Your task to perform on an android device: What's the news in Argentina? Image 0: 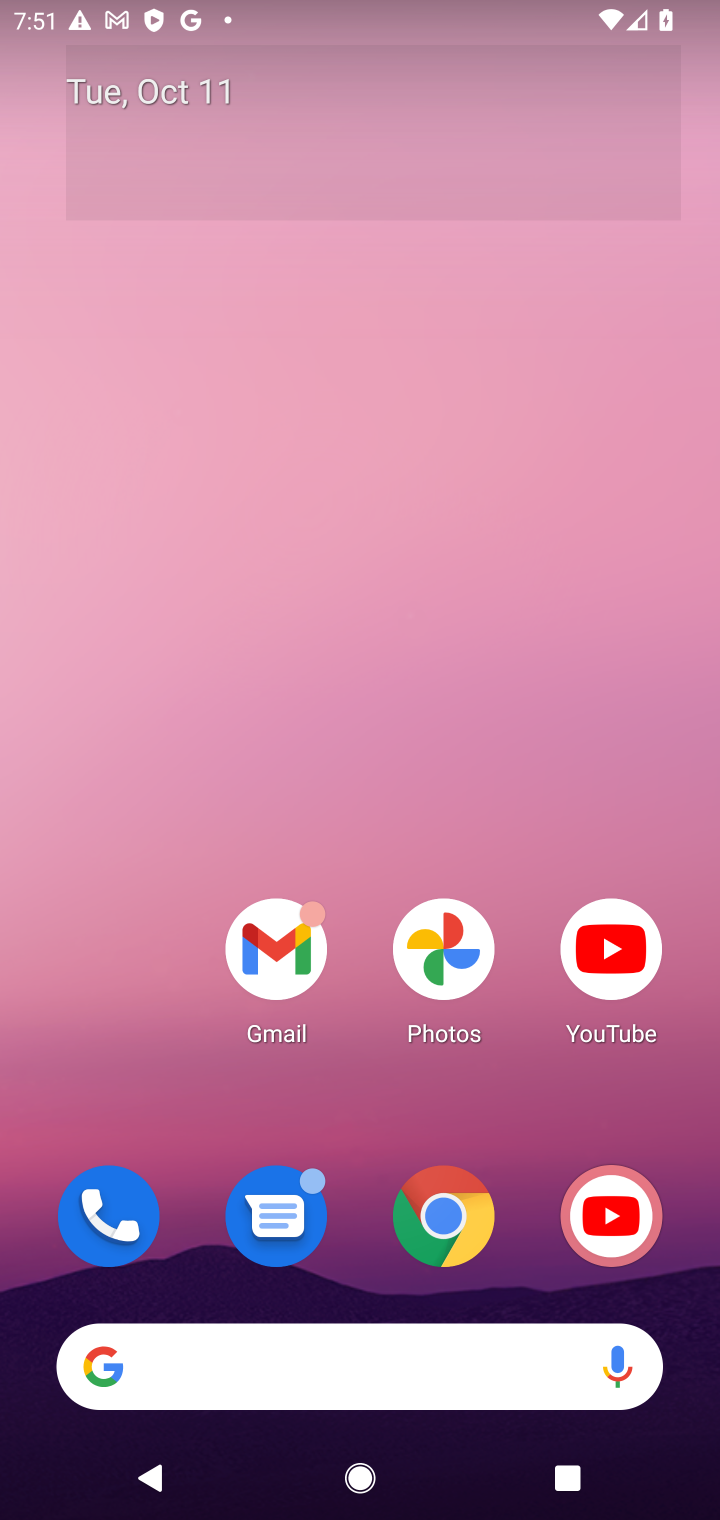
Step 0: click (444, 1216)
Your task to perform on an android device: What's the news in Argentina? Image 1: 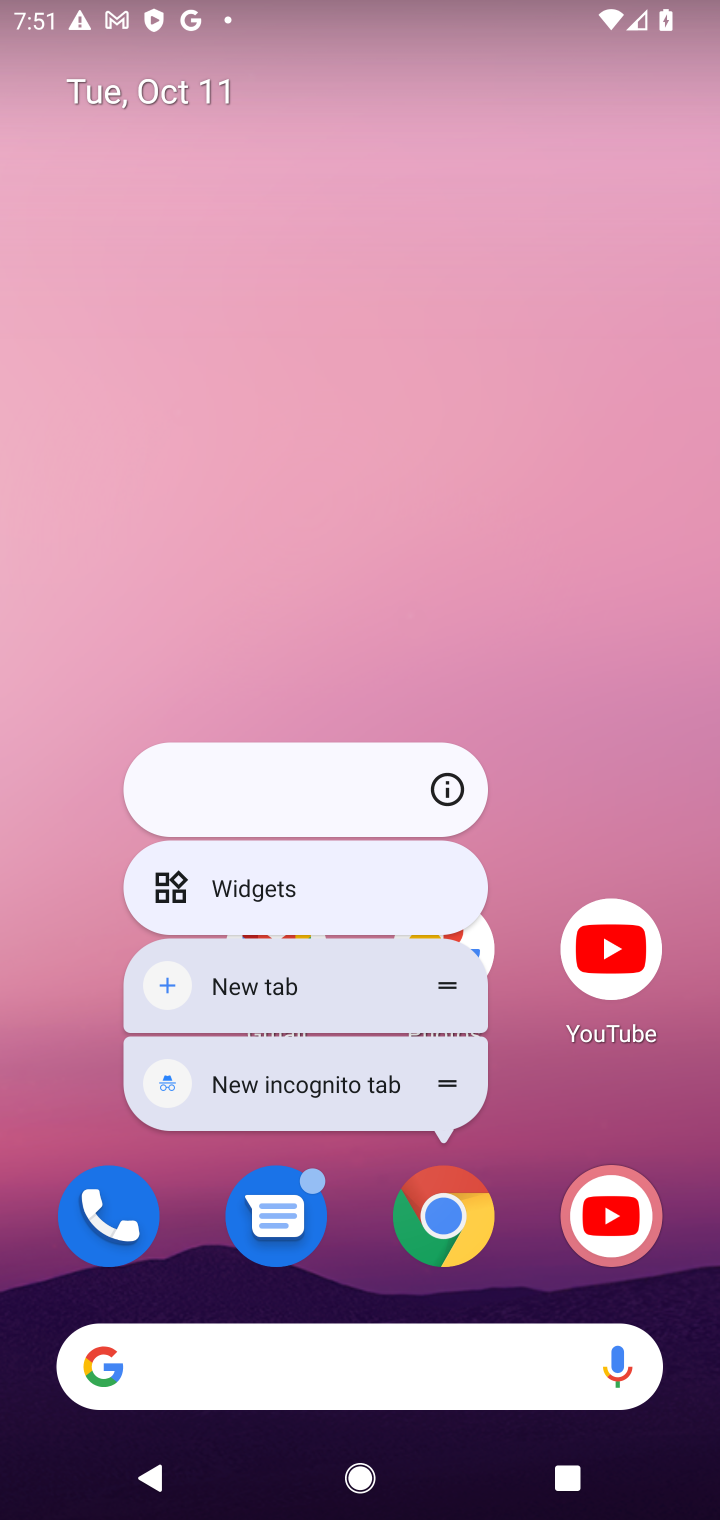
Step 1: click (440, 1213)
Your task to perform on an android device: What's the news in Argentina? Image 2: 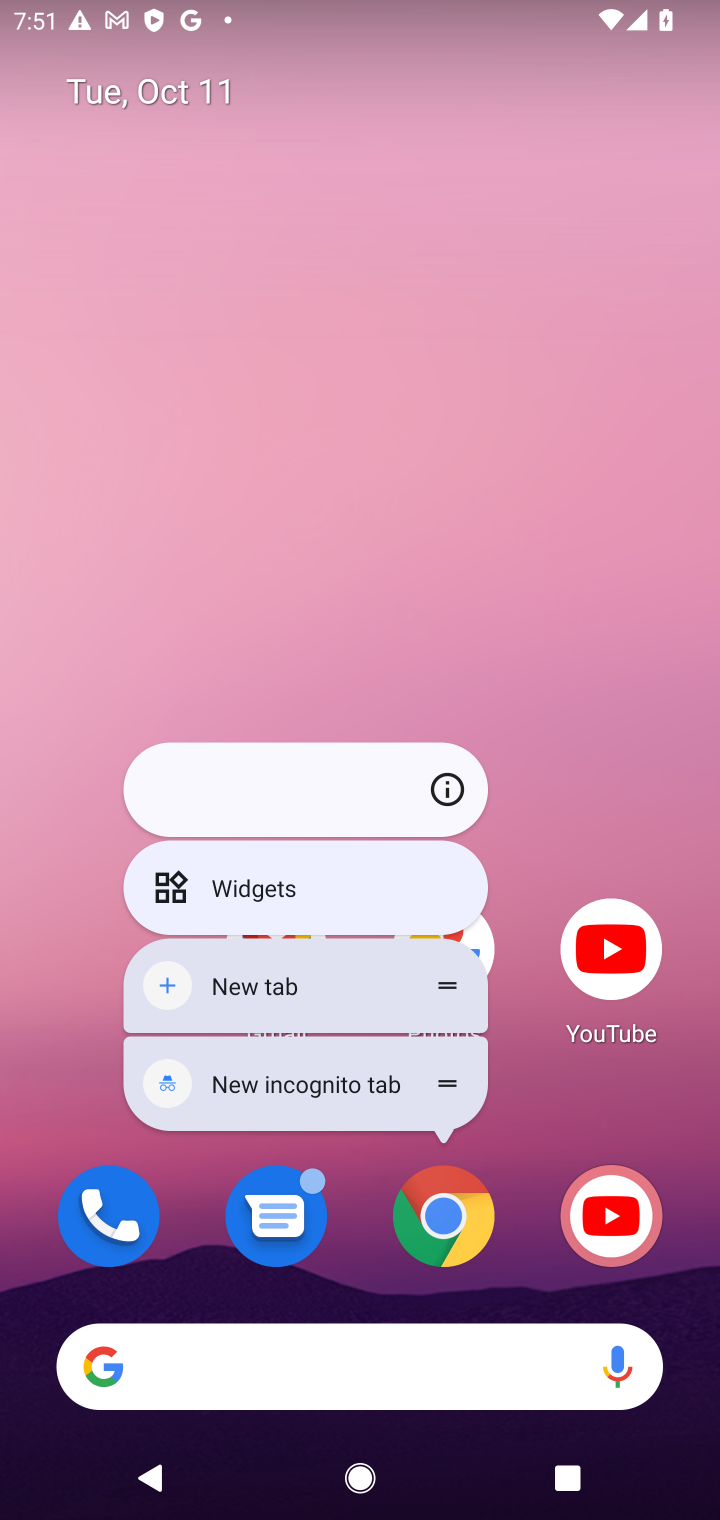
Step 2: click (440, 1213)
Your task to perform on an android device: What's the news in Argentina? Image 3: 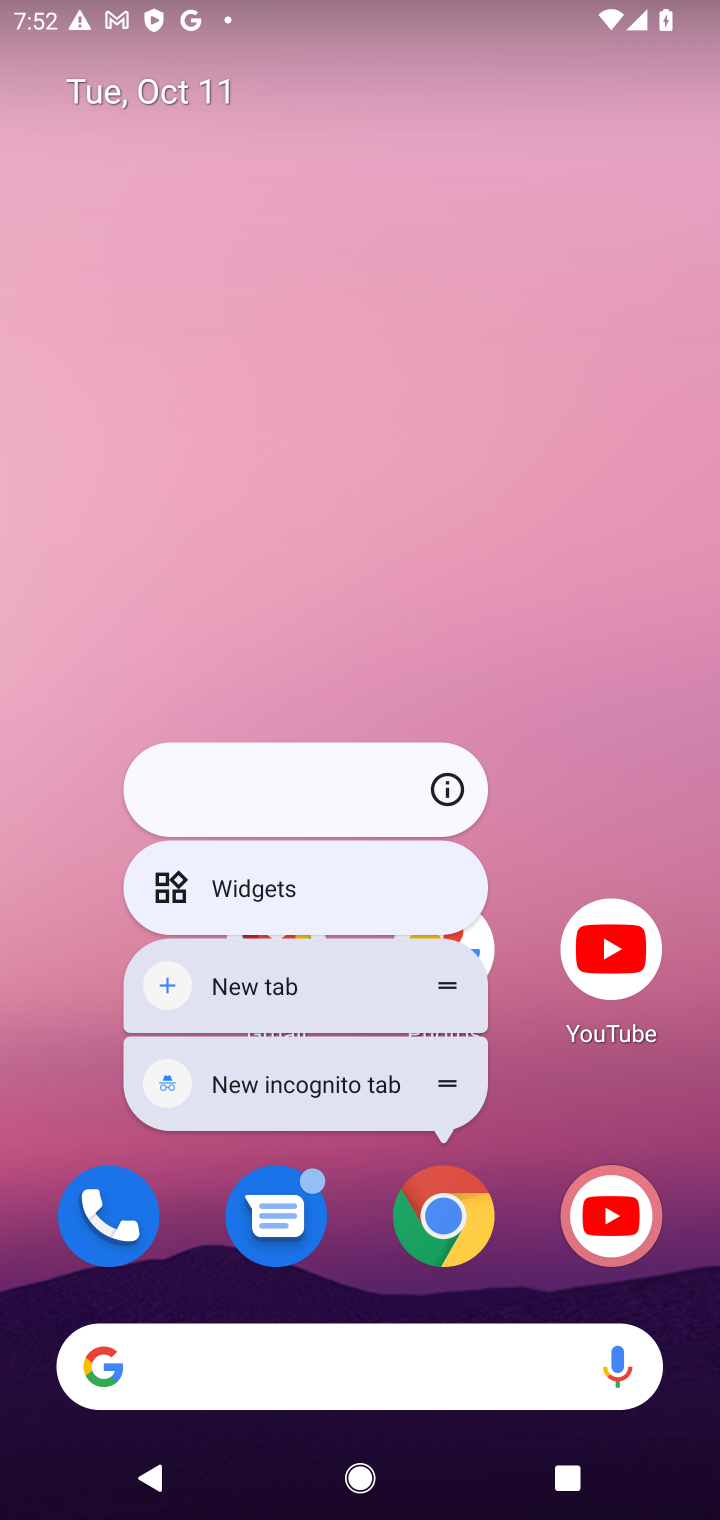
Step 3: click (440, 1213)
Your task to perform on an android device: What's the news in Argentina? Image 4: 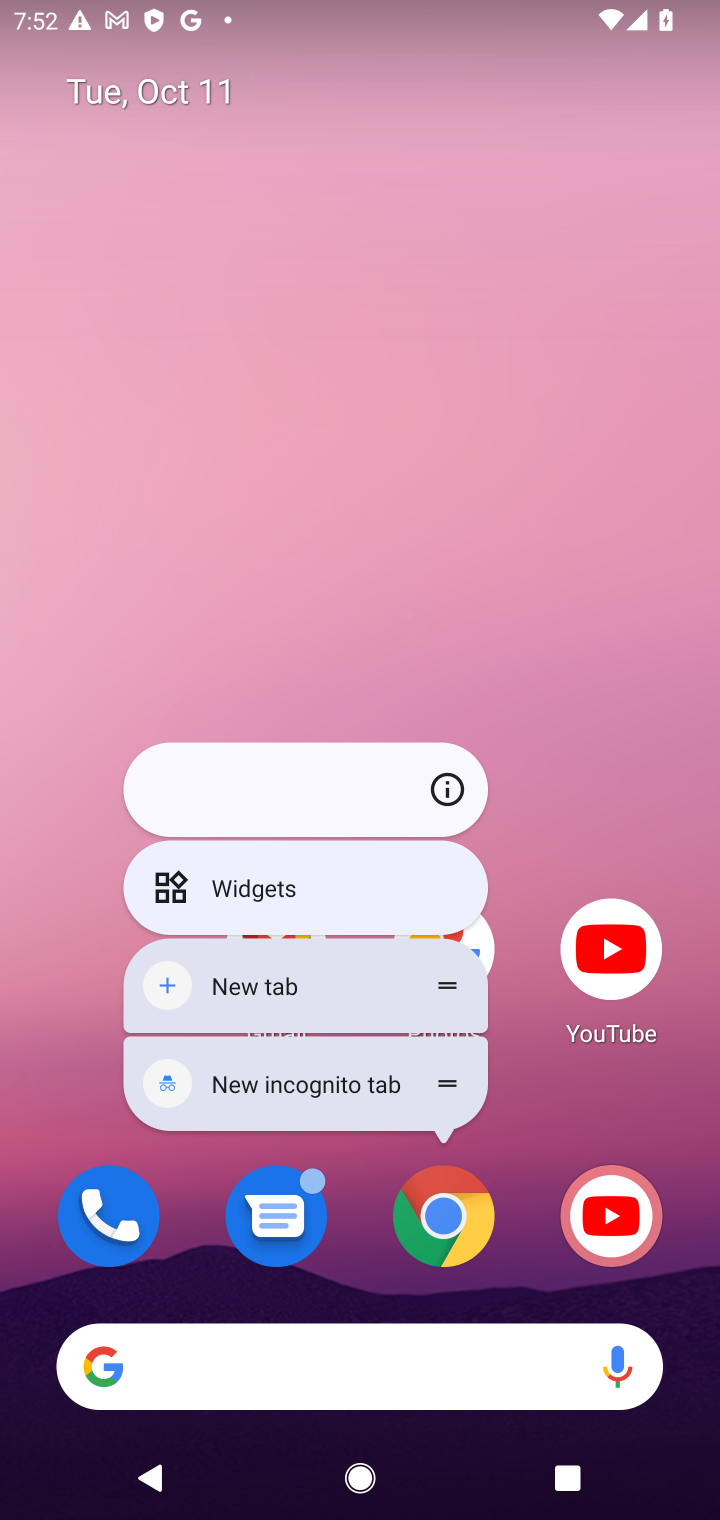
Step 4: click (440, 1213)
Your task to perform on an android device: What's the news in Argentina? Image 5: 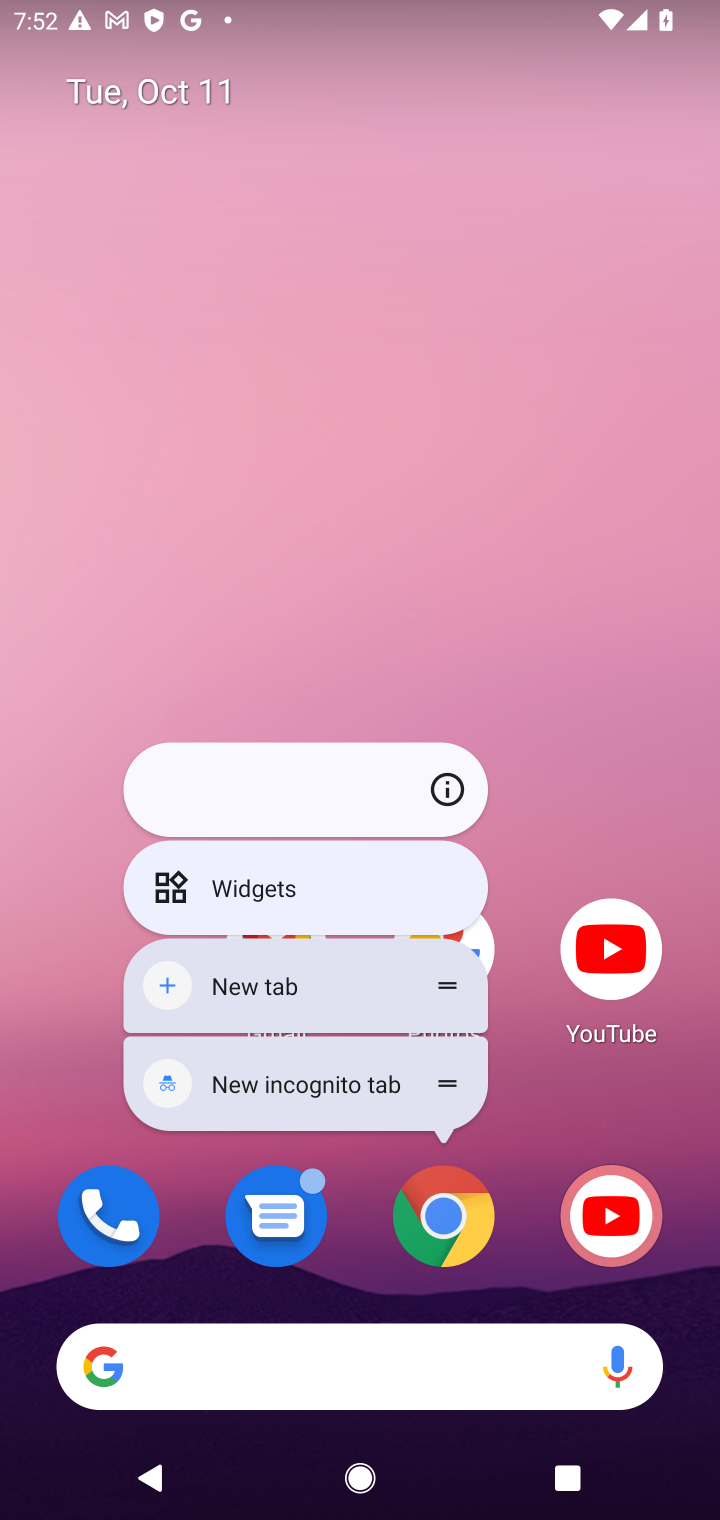
Step 5: click (440, 1213)
Your task to perform on an android device: What's the news in Argentina? Image 6: 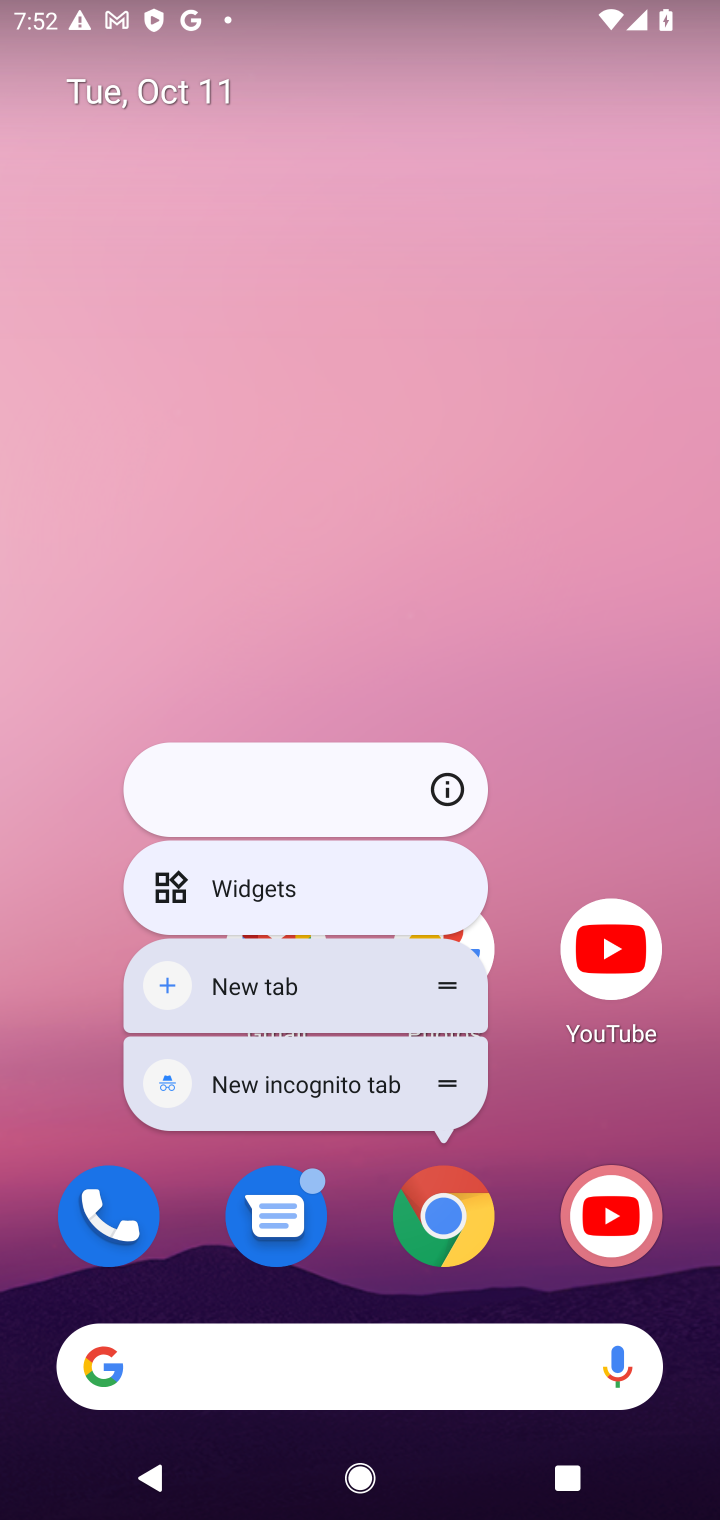
Step 6: click (440, 1213)
Your task to perform on an android device: What's the news in Argentina? Image 7: 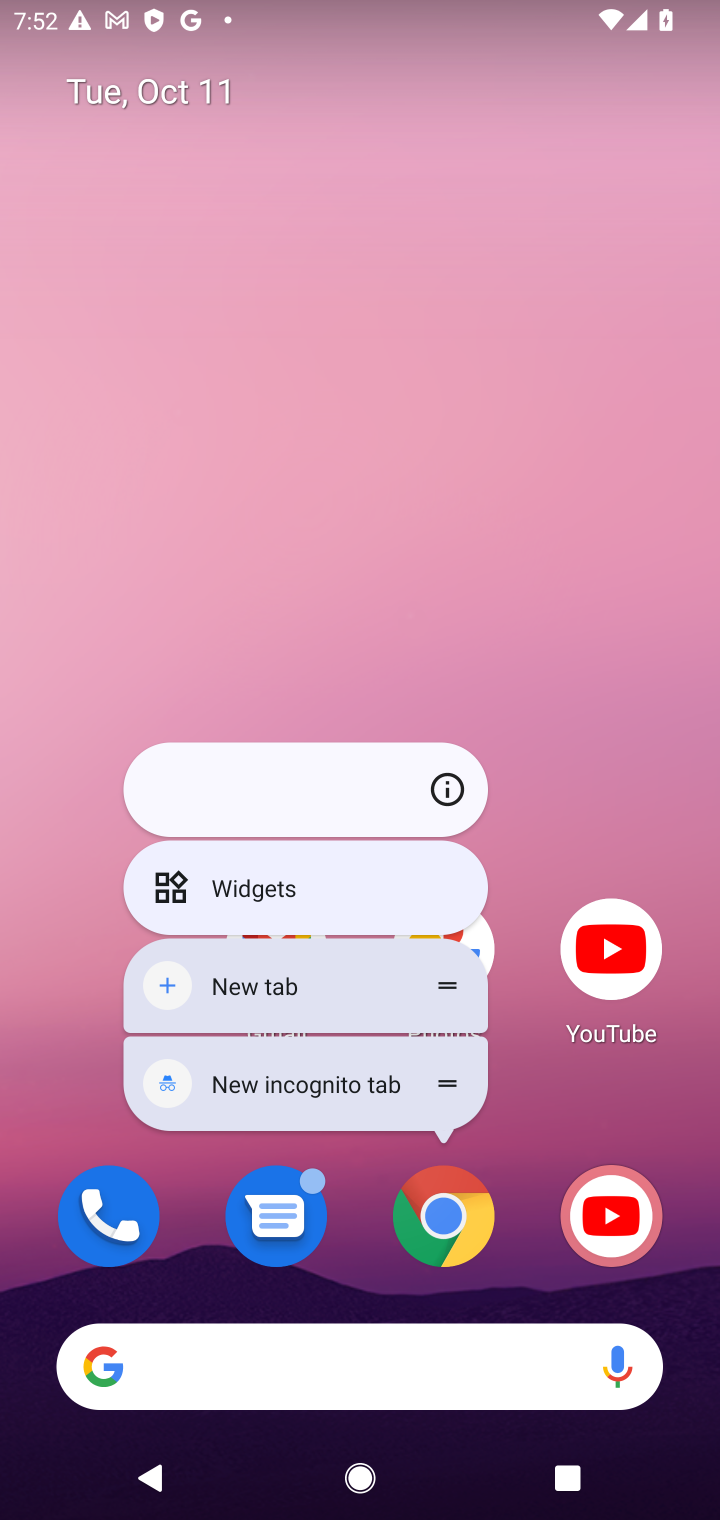
Step 7: click (440, 1213)
Your task to perform on an android device: What's the news in Argentina? Image 8: 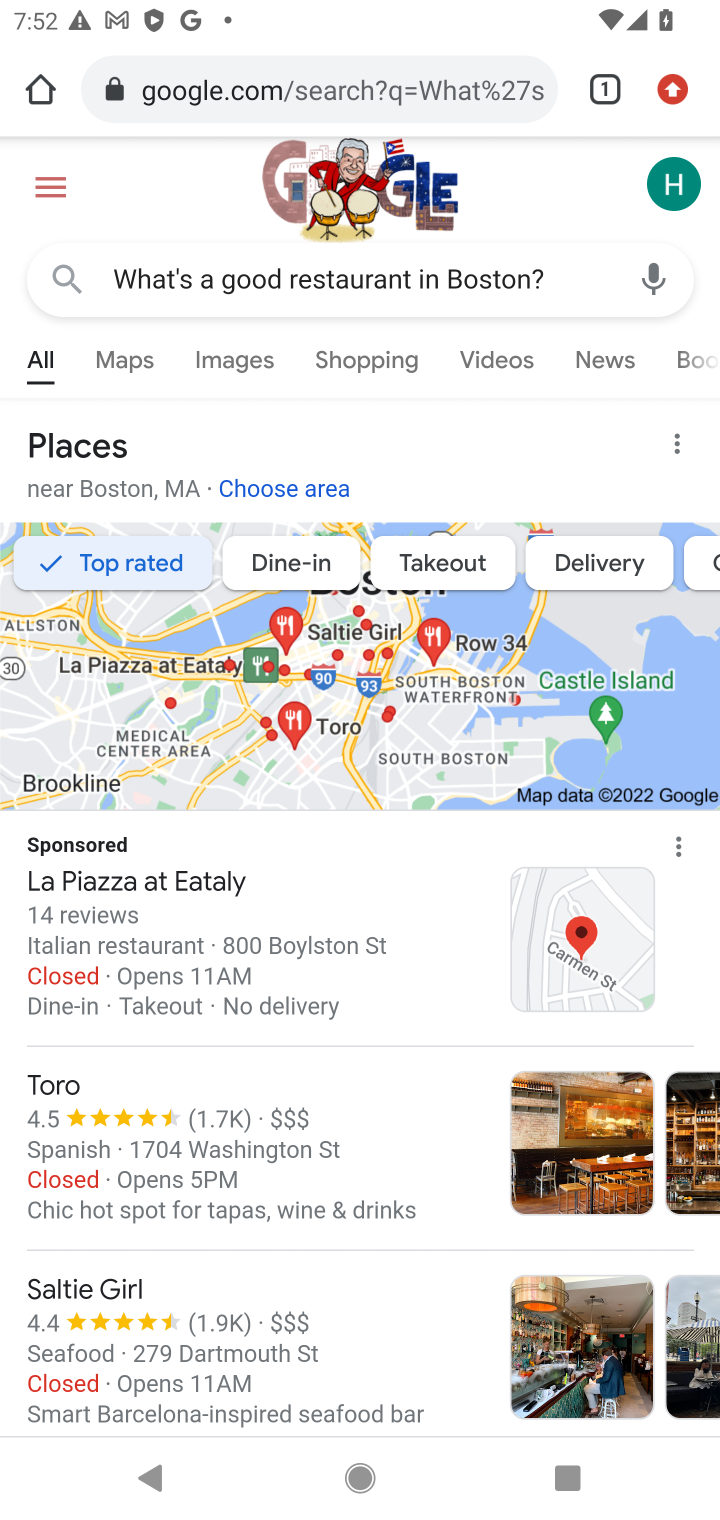
Step 8: click (561, 288)
Your task to perform on an android device: What's the news in Argentina? Image 9: 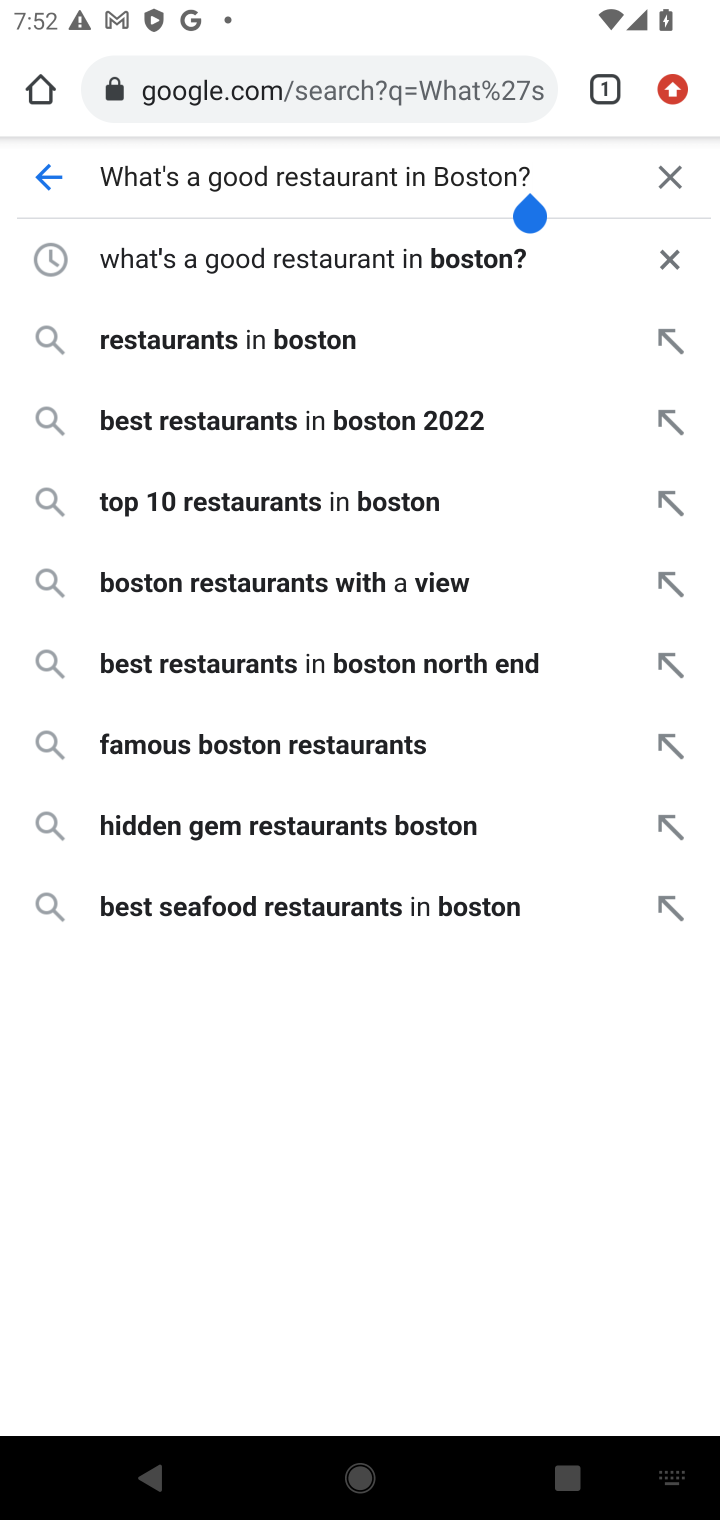
Step 9: click (665, 176)
Your task to perform on an android device: What's the news in Argentina? Image 10: 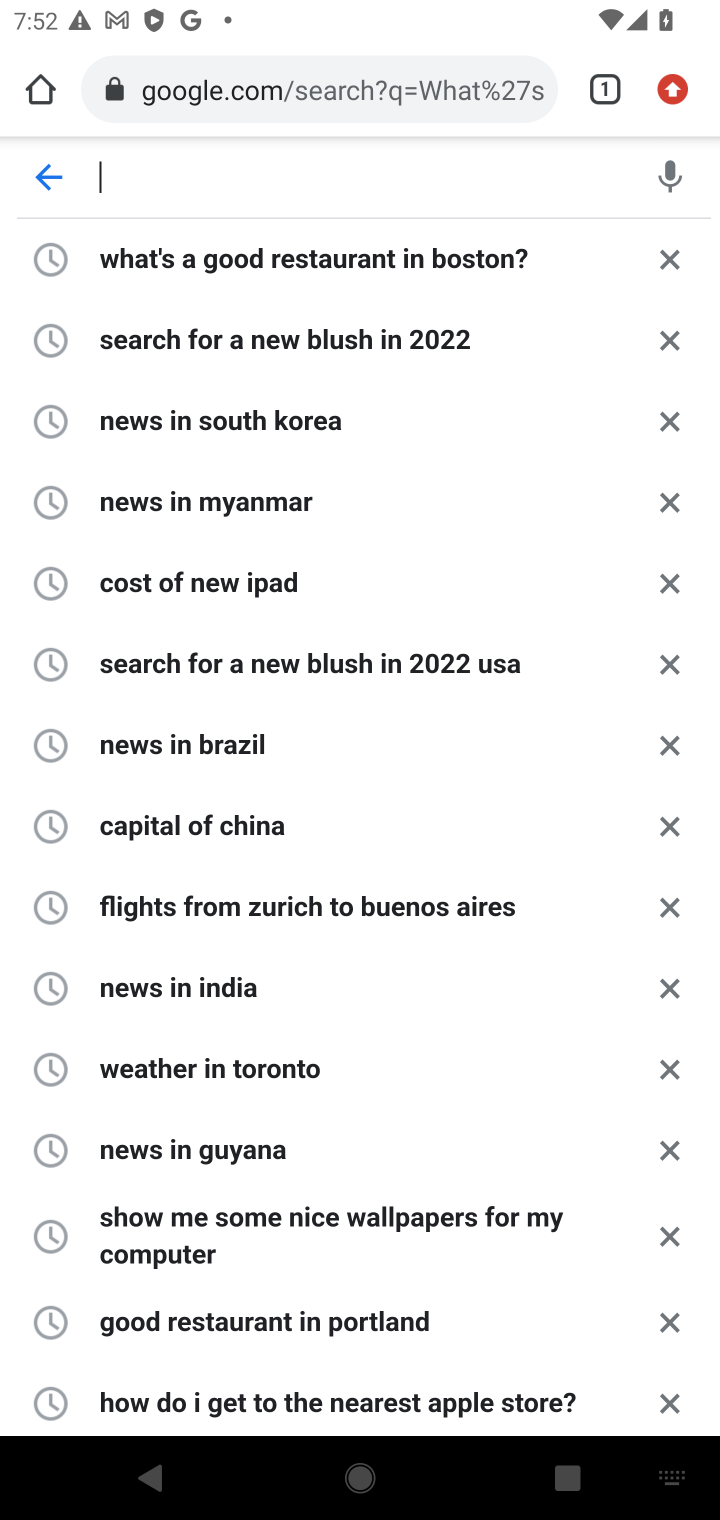
Step 10: type "What's the news in Argentina?"
Your task to perform on an android device: What's the news in Argentina? Image 11: 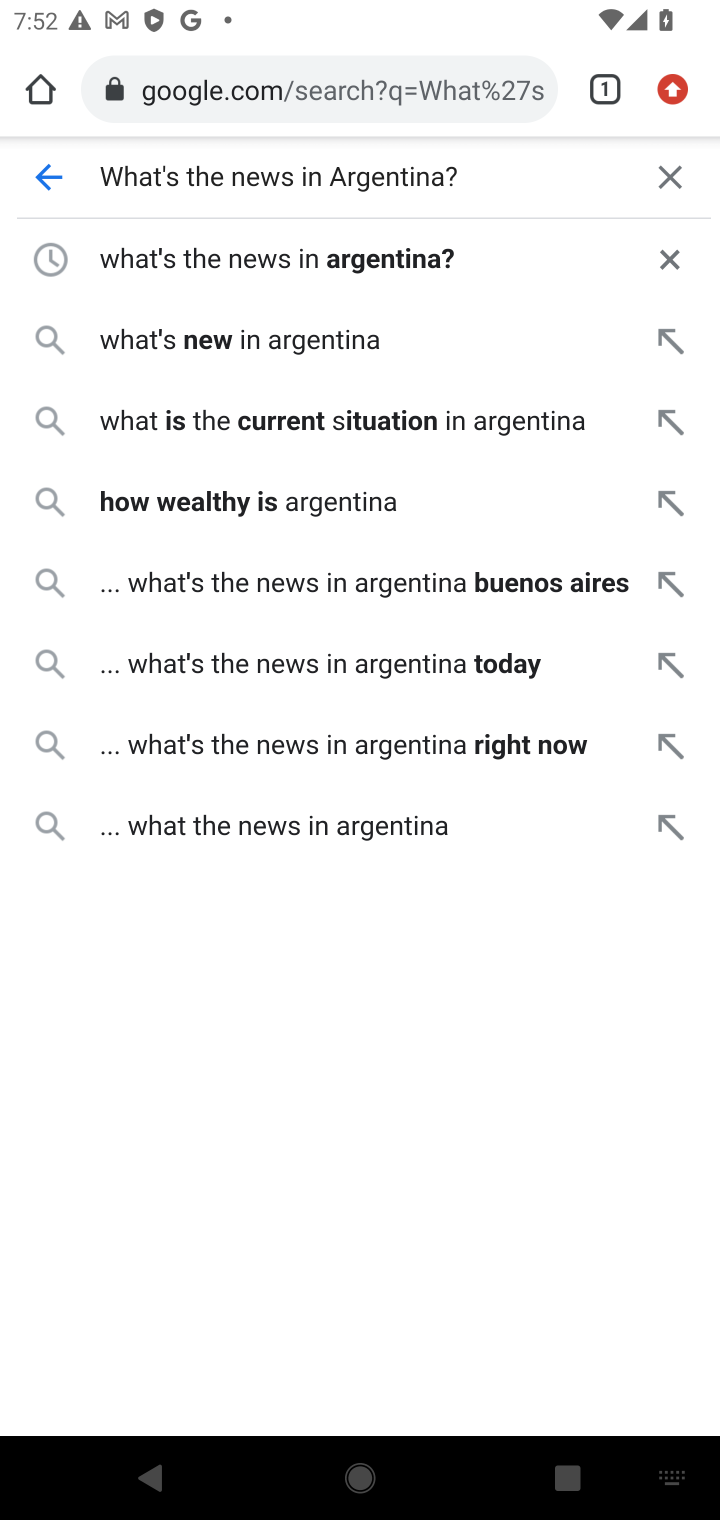
Step 11: press enter
Your task to perform on an android device: What's the news in Argentina? Image 12: 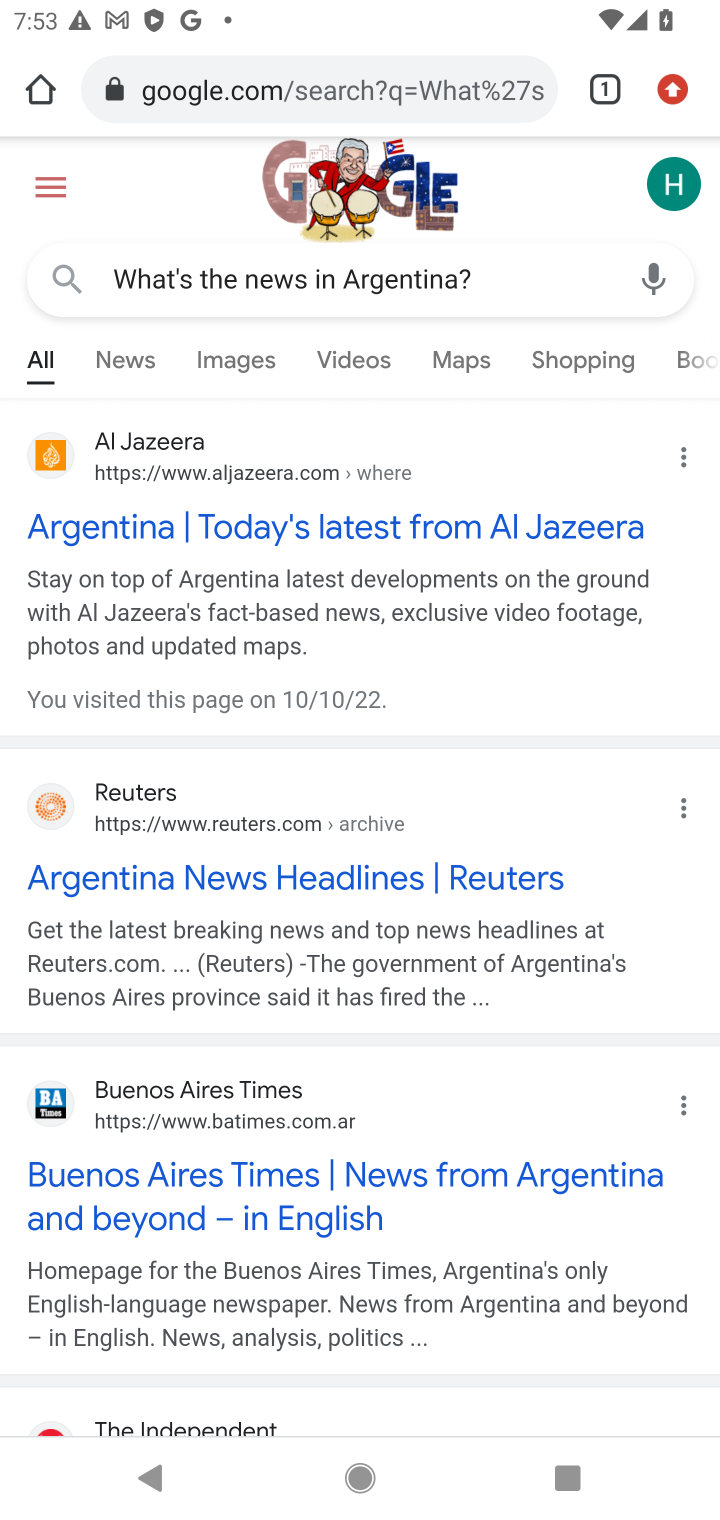
Step 12: click (136, 366)
Your task to perform on an android device: What's the news in Argentina? Image 13: 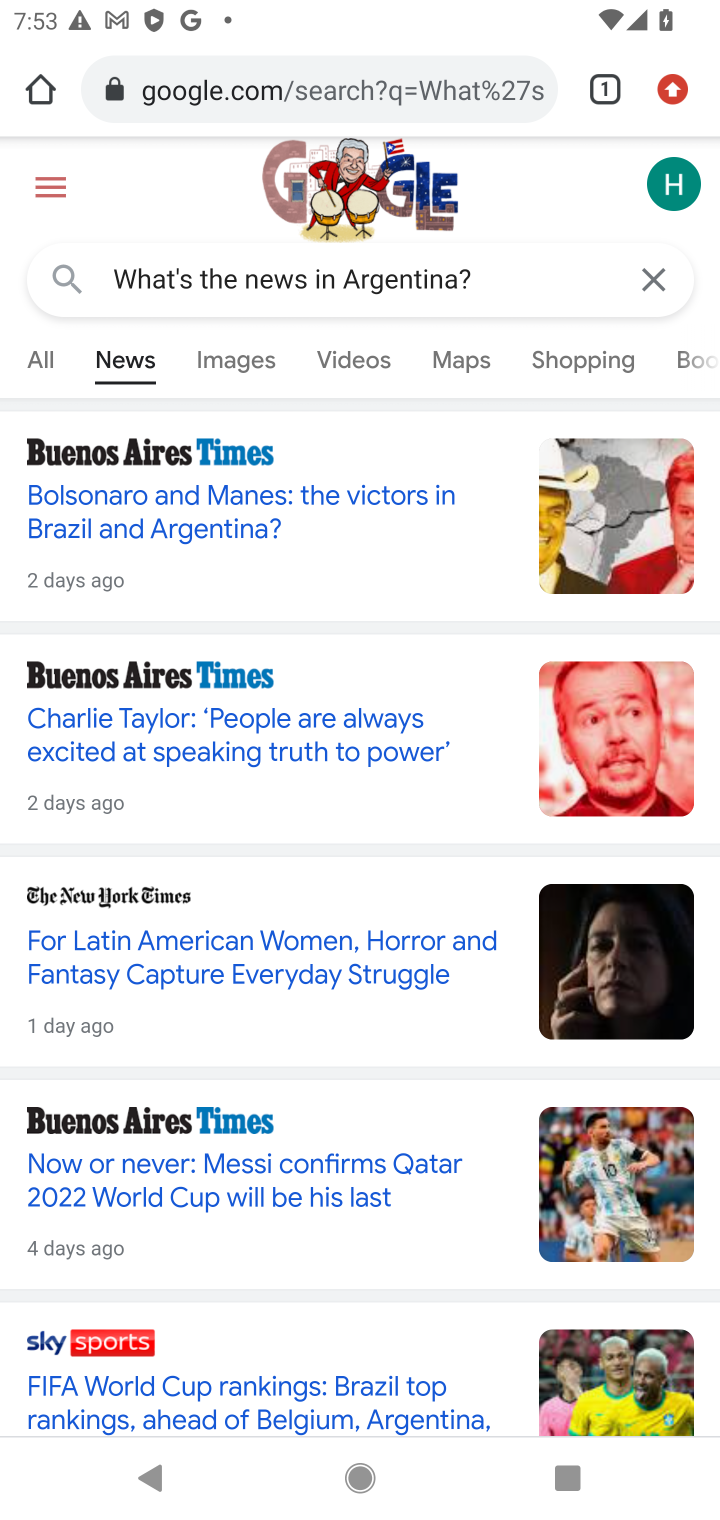
Step 13: task complete